Your task to perform on an android device: turn on improve location accuracy Image 0: 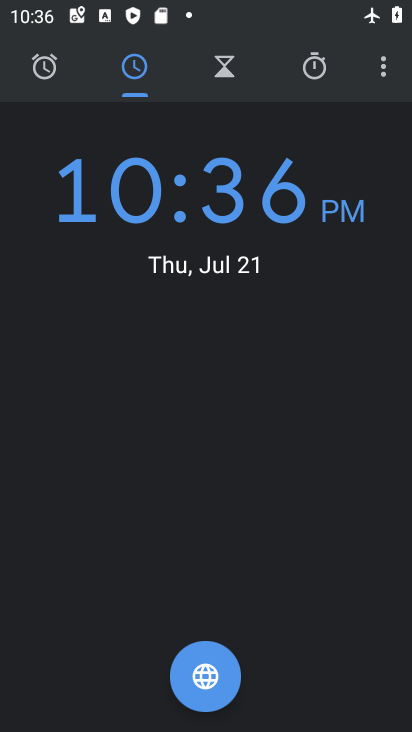
Step 0: press home button
Your task to perform on an android device: turn on improve location accuracy Image 1: 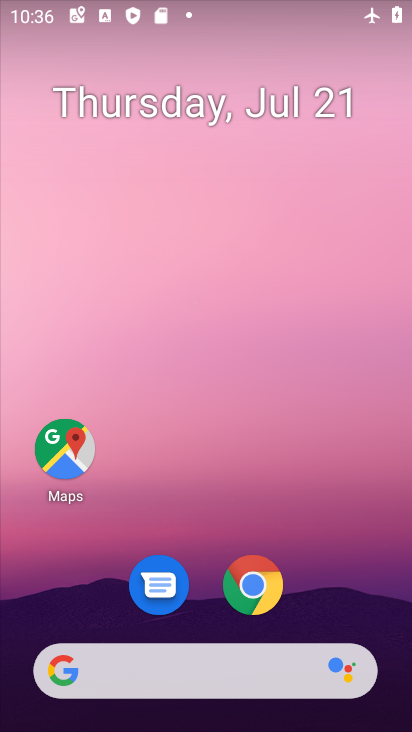
Step 1: drag from (318, 593) to (350, 69)
Your task to perform on an android device: turn on improve location accuracy Image 2: 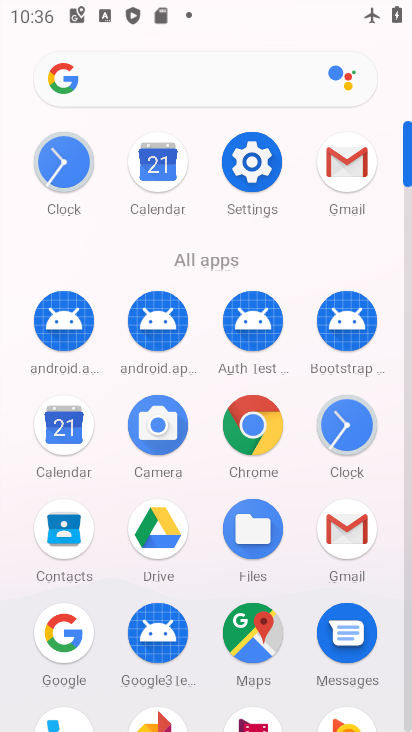
Step 2: click (267, 156)
Your task to perform on an android device: turn on improve location accuracy Image 3: 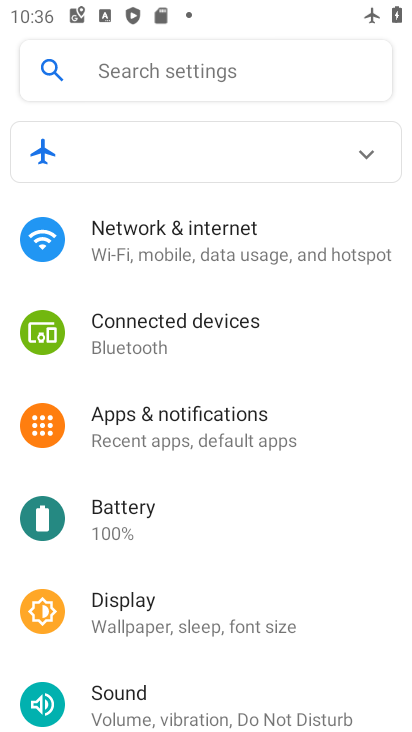
Step 3: drag from (240, 558) to (314, 123)
Your task to perform on an android device: turn on improve location accuracy Image 4: 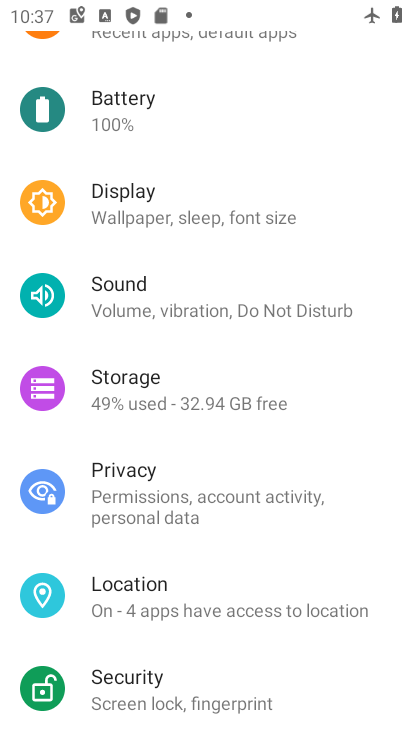
Step 4: click (207, 599)
Your task to perform on an android device: turn on improve location accuracy Image 5: 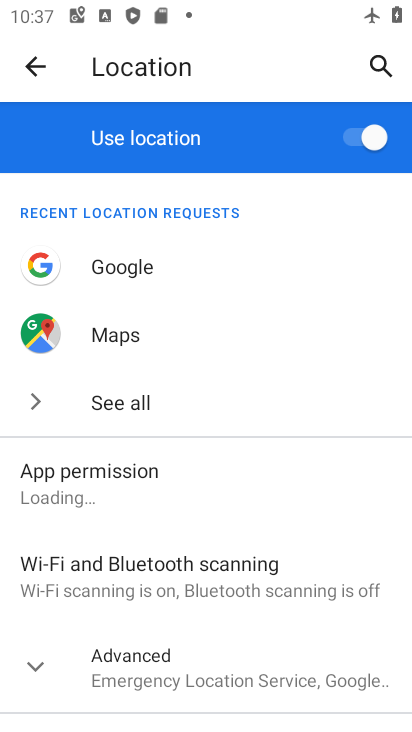
Step 5: drag from (225, 486) to (247, 233)
Your task to perform on an android device: turn on improve location accuracy Image 6: 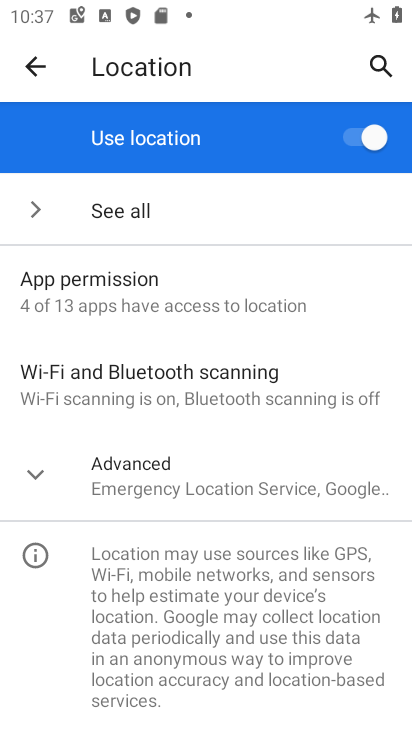
Step 6: click (35, 475)
Your task to perform on an android device: turn on improve location accuracy Image 7: 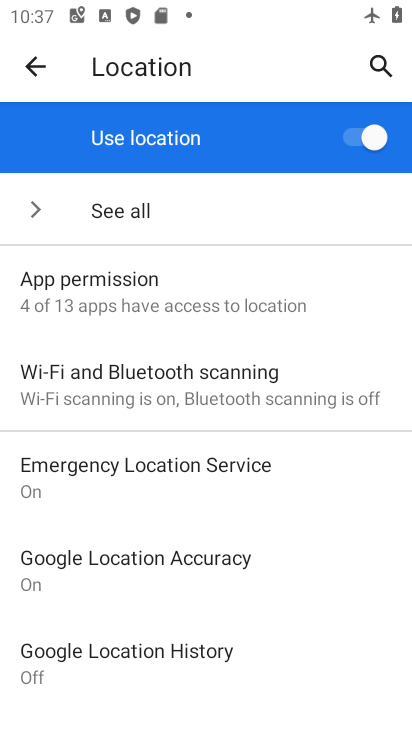
Step 7: click (214, 564)
Your task to perform on an android device: turn on improve location accuracy Image 8: 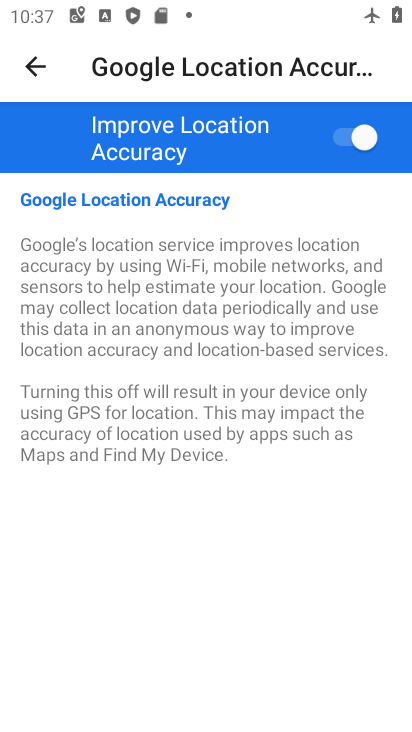
Step 8: task complete